Your task to perform on an android device: Go to notification settings Image 0: 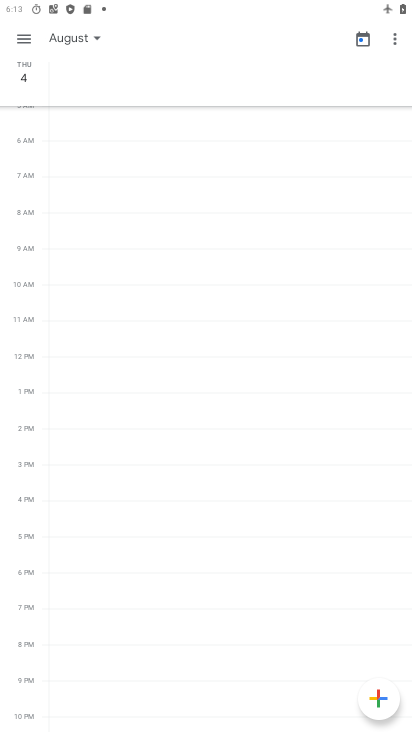
Step 0: press home button
Your task to perform on an android device: Go to notification settings Image 1: 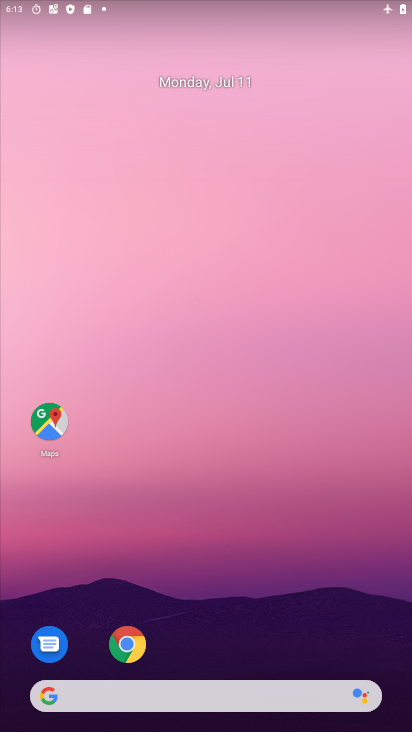
Step 1: drag from (226, 682) to (276, 169)
Your task to perform on an android device: Go to notification settings Image 2: 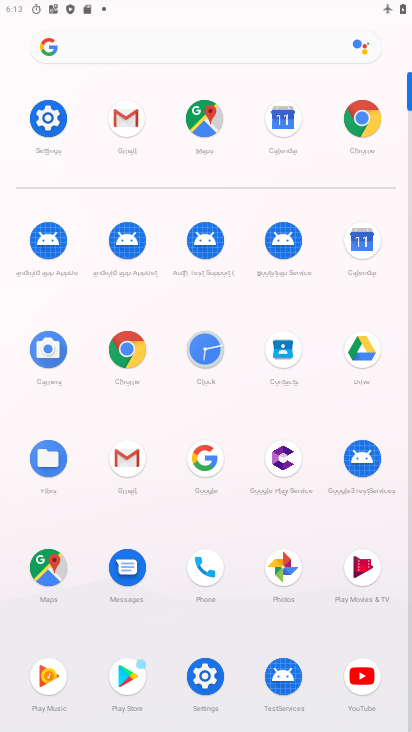
Step 2: click (51, 126)
Your task to perform on an android device: Go to notification settings Image 3: 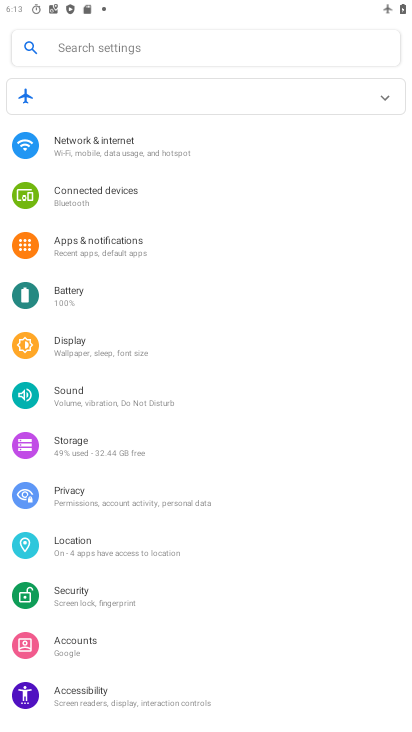
Step 3: click (112, 247)
Your task to perform on an android device: Go to notification settings Image 4: 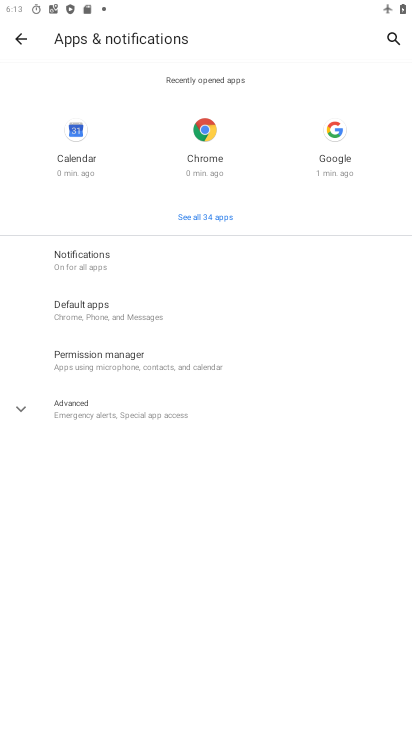
Step 4: click (133, 259)
Your task to perform on an android device: Go to notification settings Image 5: 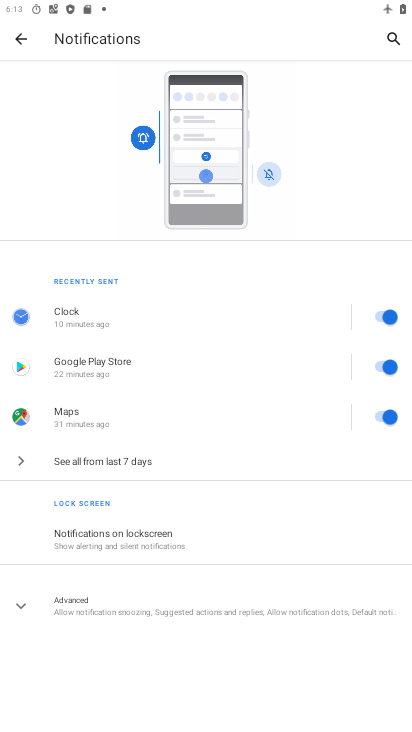
Step 5: task complete